Your task to perform on an android device: Search for usb-b on target, select the first entry, and add it to the cart. Image 0: 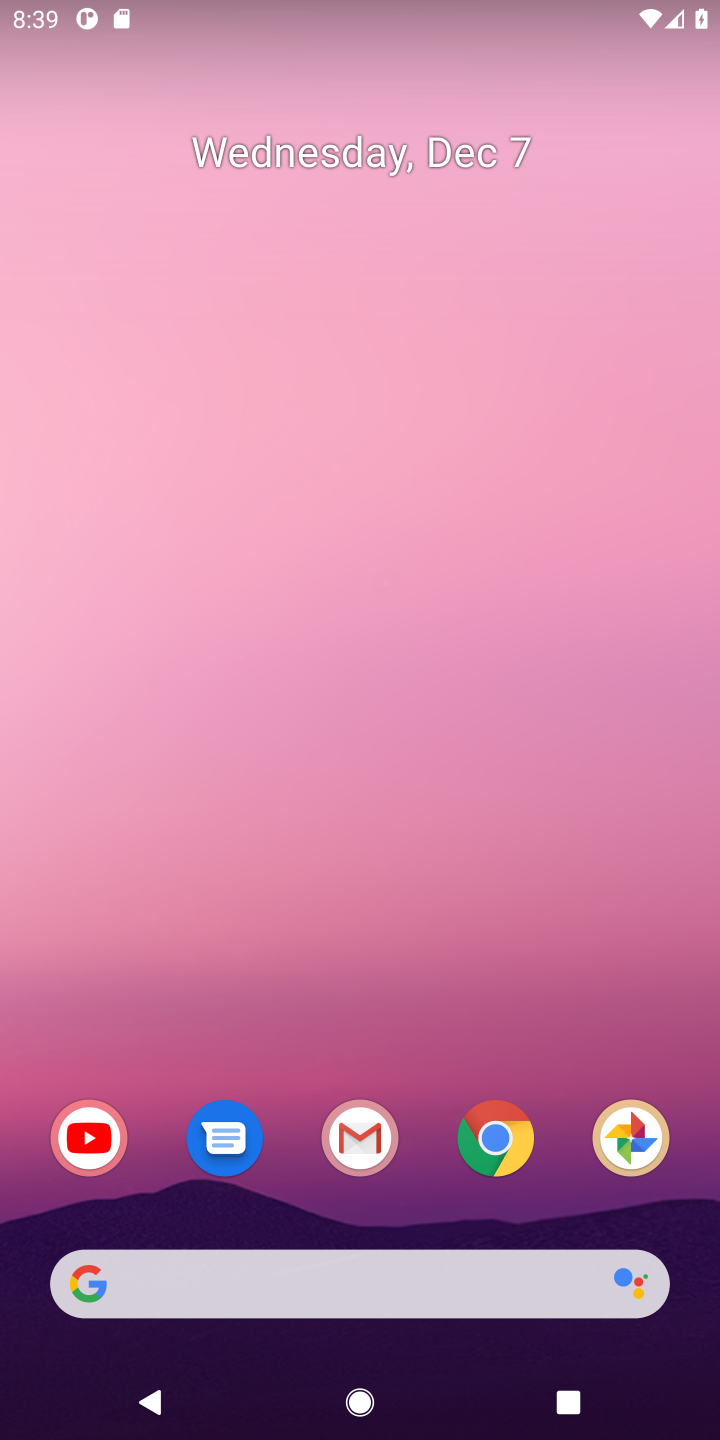
Step 0: press home button
Your task to perform on an android device: Search for usb-b on target, select the first entry, and add it to the cart. Image 1: 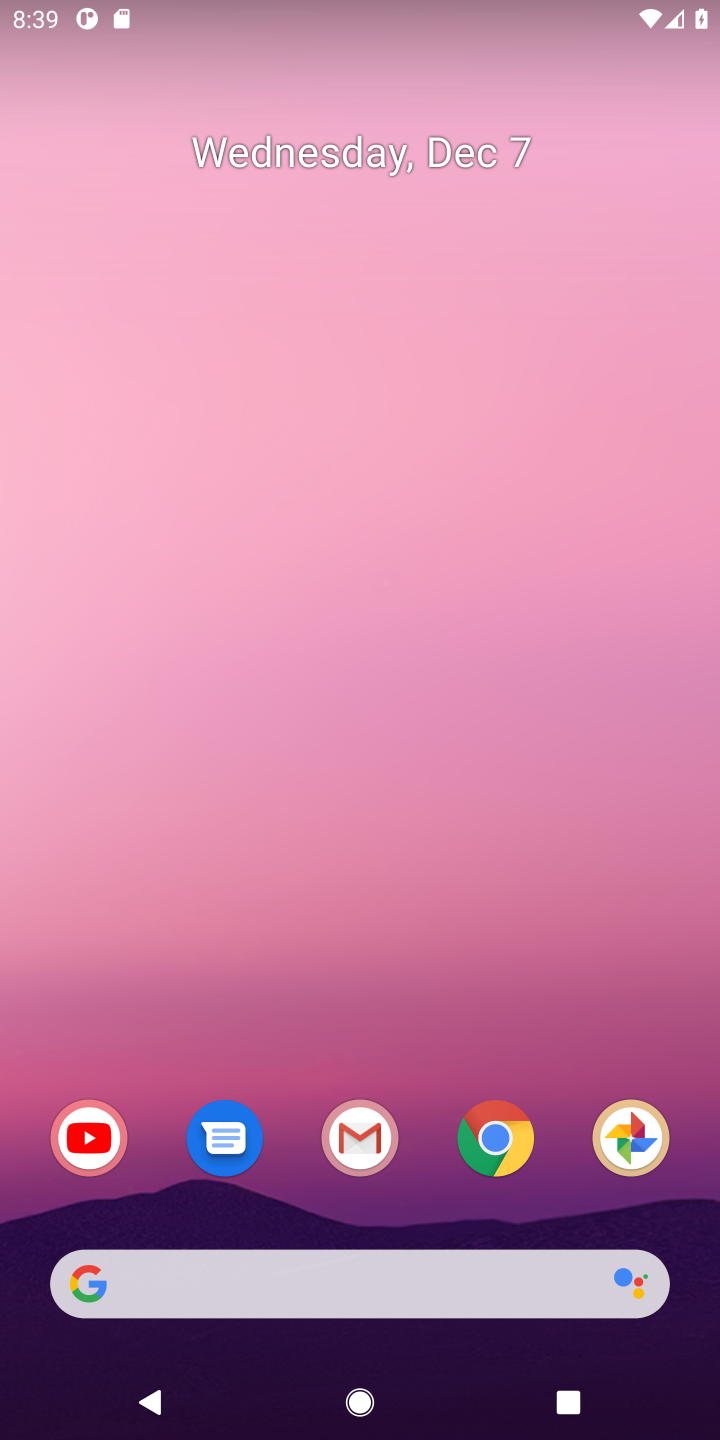
Step 1: click (150, 1266)
Your task to perform on an android device: Search for usb-b on target, select the first entry, and add it to the cart. Image 2: 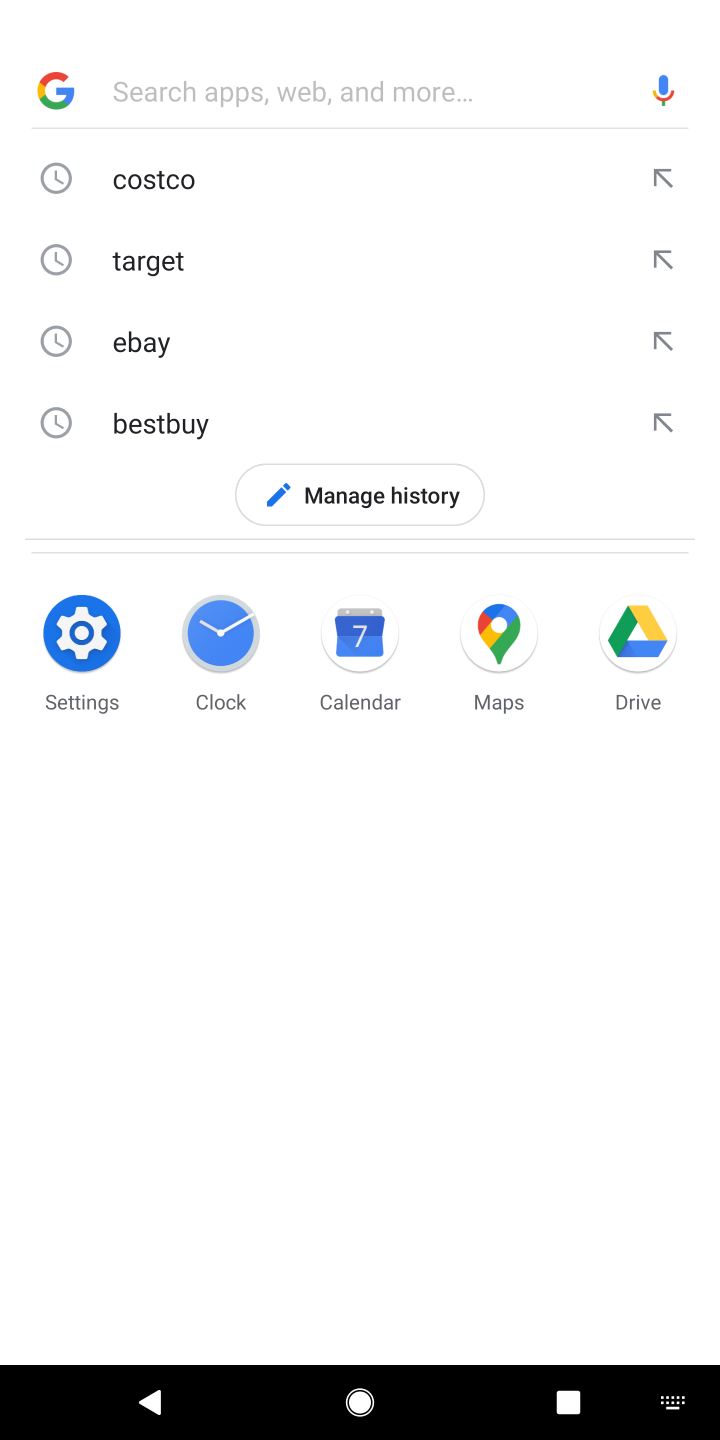
Step 2: type "target"
Your task to perform on an android device: Search for usb-b on target, select the first entry, and add it to the cart. Image 3: 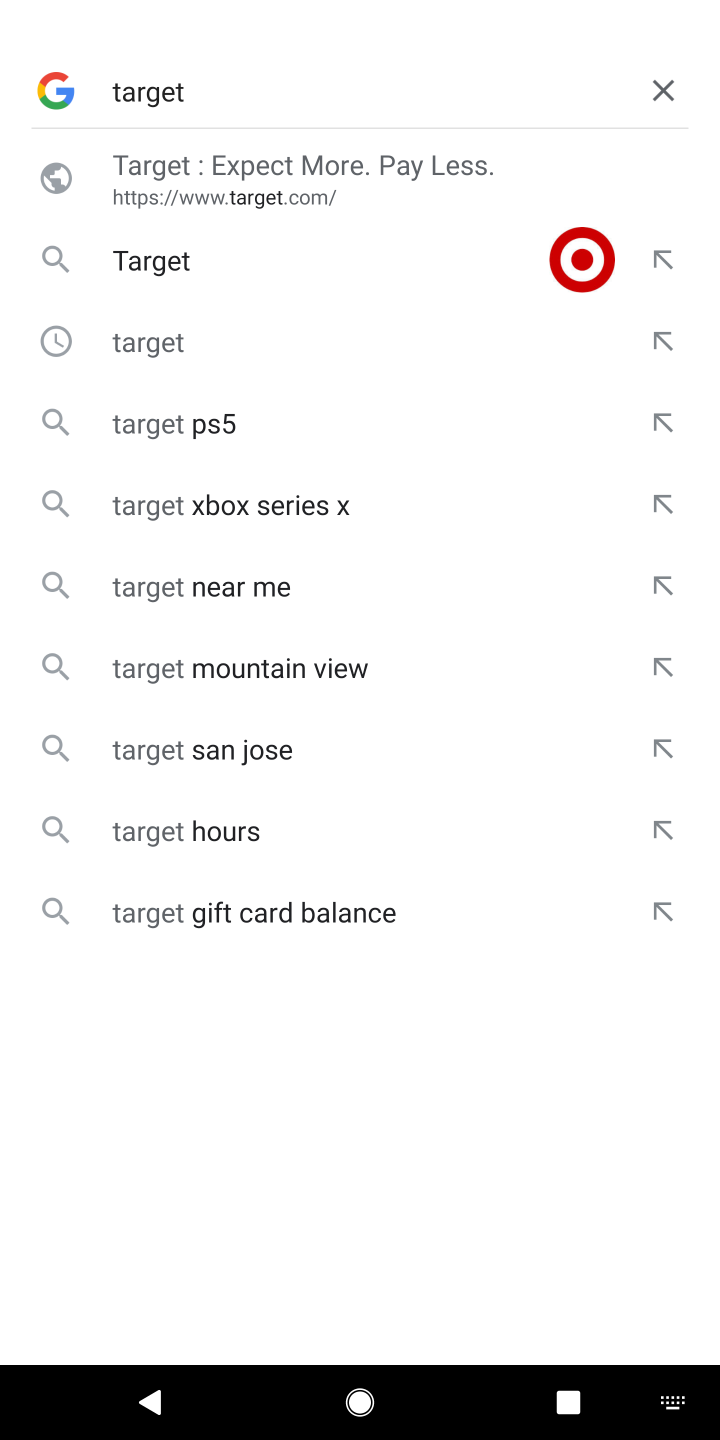
Step 3: press enter
Your task to perform on an android device: Search for usb-b on target, select the first entry, and add it to the cart. Image 4: 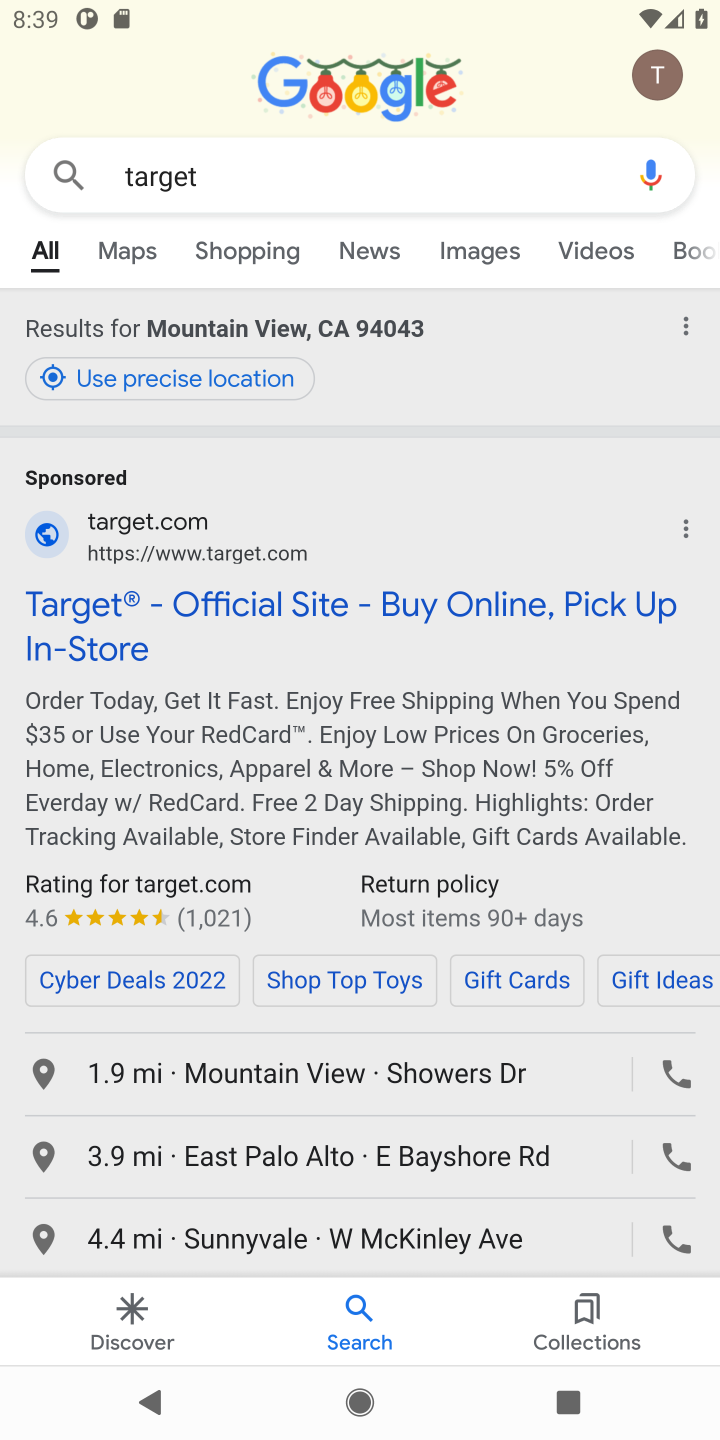
Step 4: click (297, 605)
Your task to perform on an android device: Search for usb-b on target, select the first entry, and add it to the cart. Image 5: 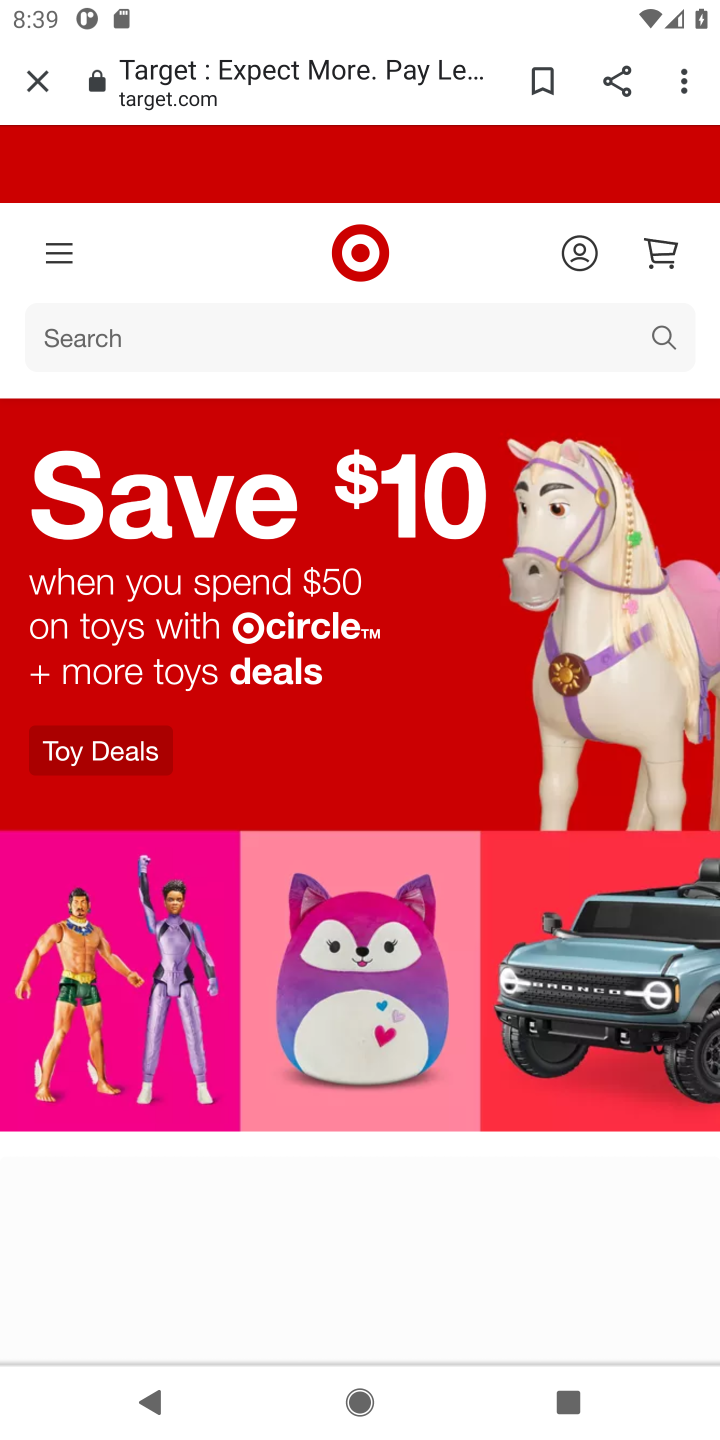
Step 5: click (82, 344)
Your task to perform on an android device: Search for usb-b on target, select the first entry, and add it to the cart. Image 6: 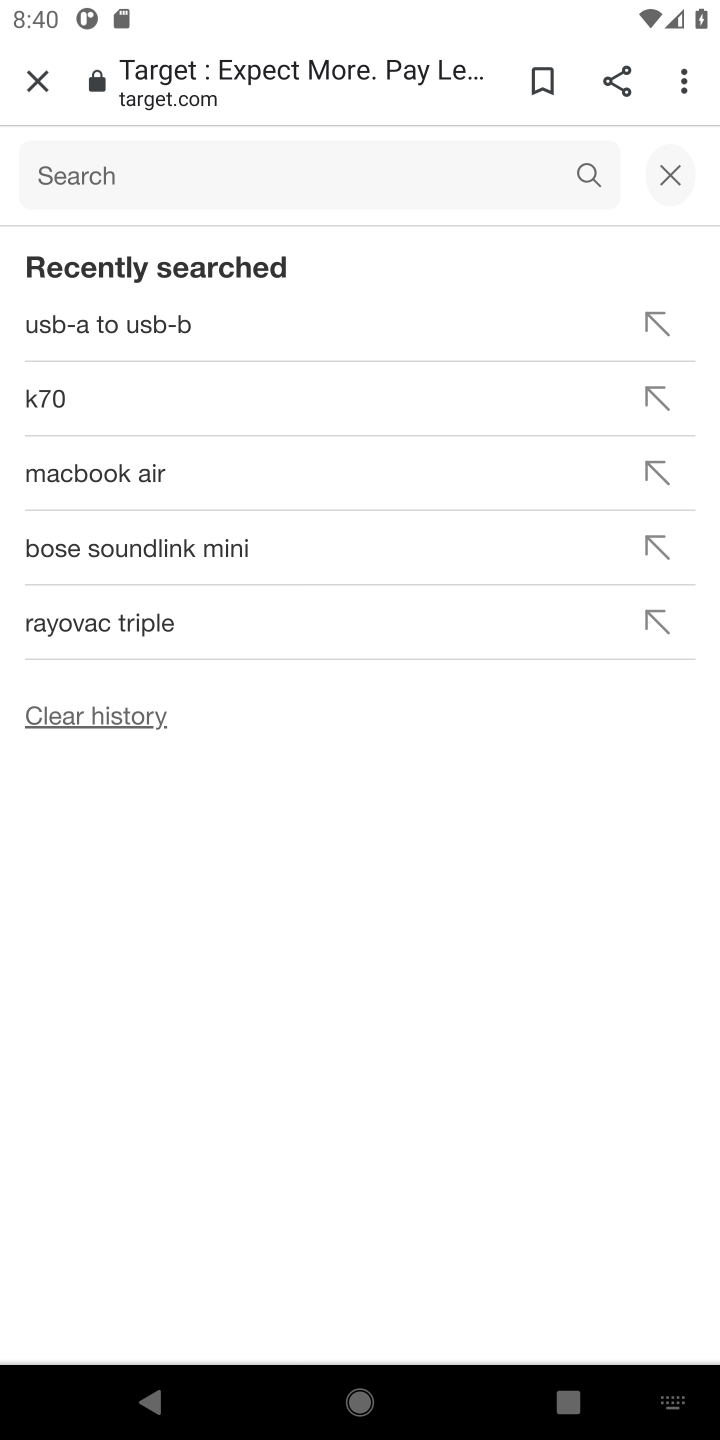
Step 6: press enter
Your task to perform on an android device: Search for usb-b on target, select the first entry, and add it to the cart. Image 7: 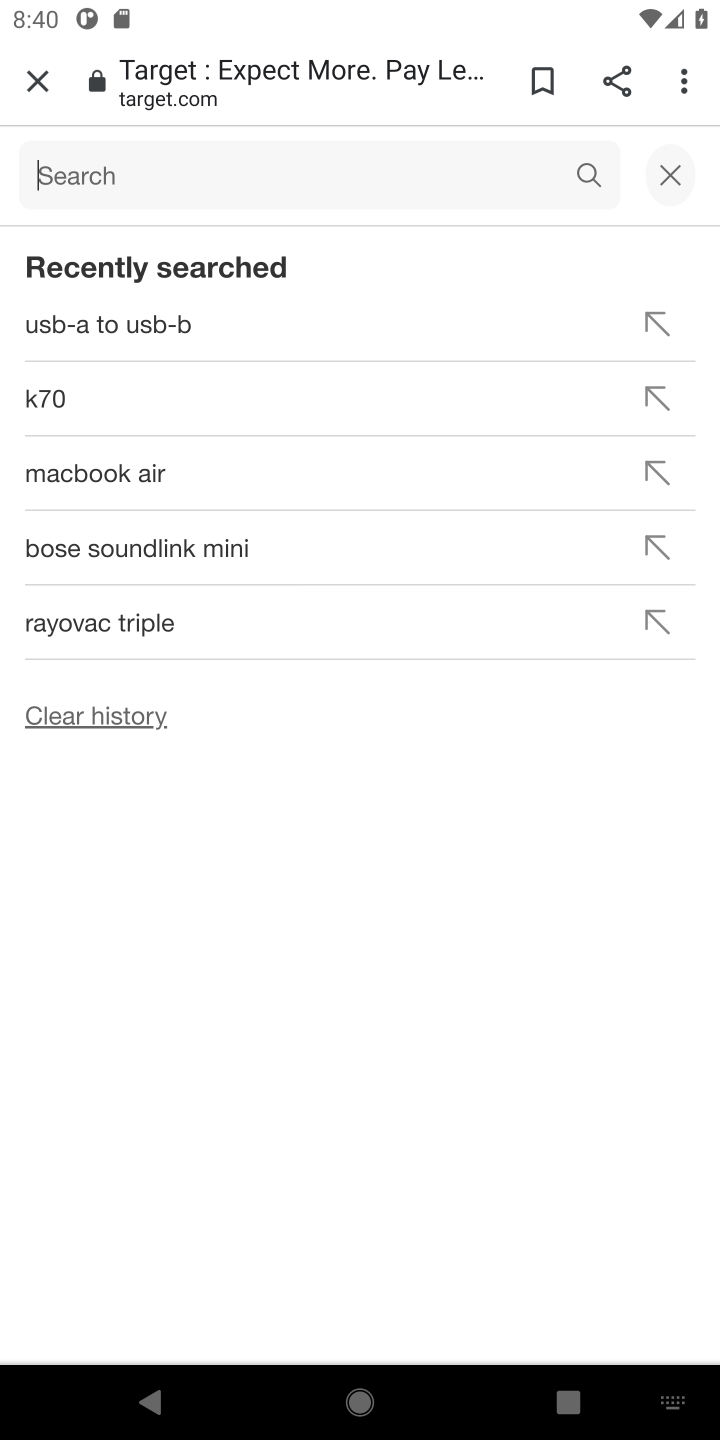
Step 7: type " usb-b"
Your task to perform on an android device: Search for usb-b on target, select the first entry, and add it to the cart. Image 8: 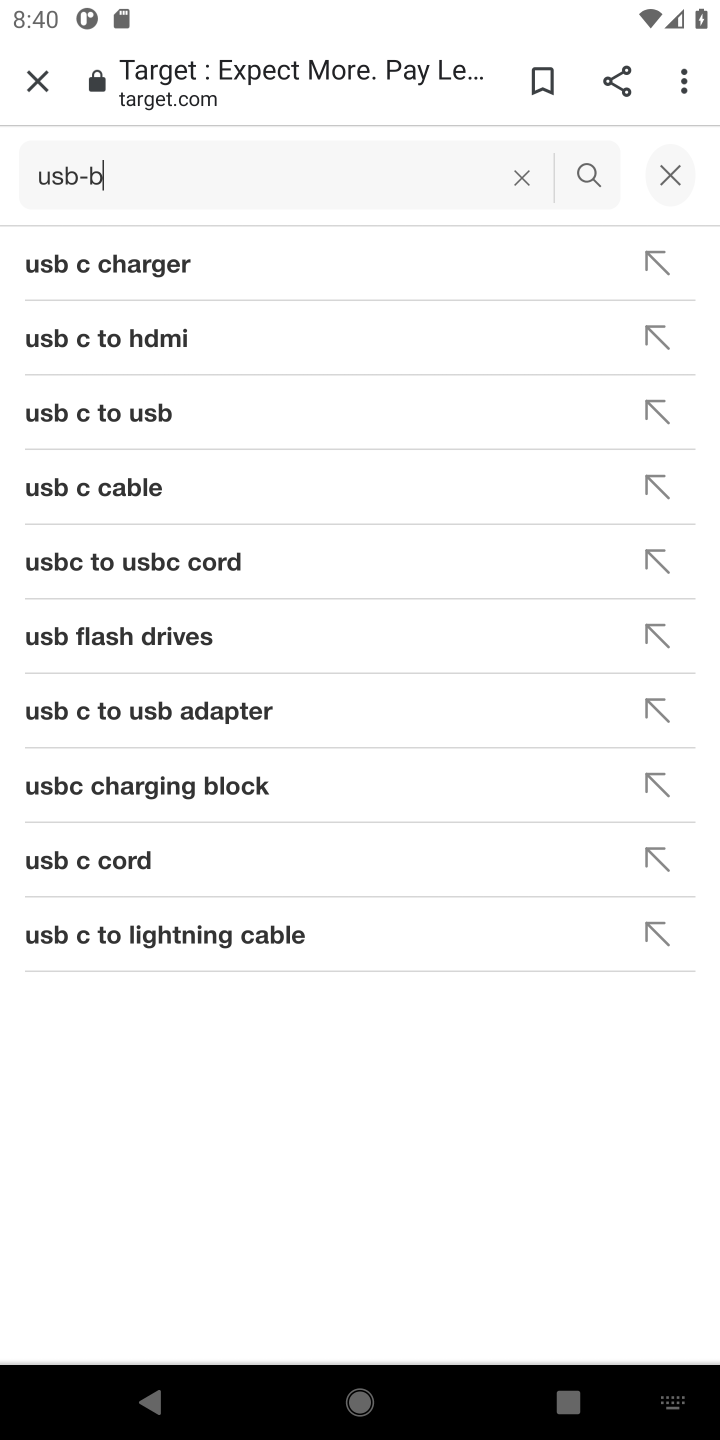
Step 8: press enter
Your task to perform on an android device: Search for usb-b on target, select the first entry, and add it to the cart. Image 9: 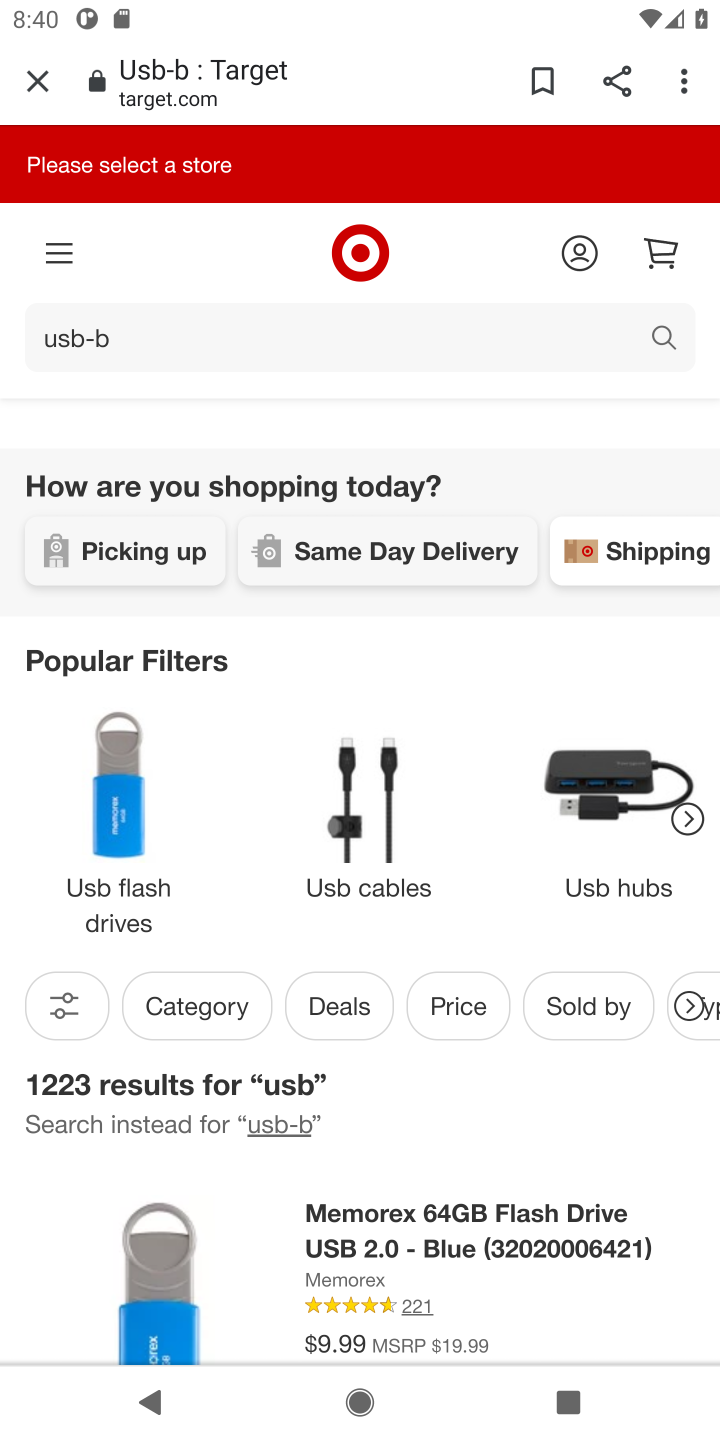
Step 9: task complete